Your task to perform on an android device: change notification settings in the gmail app Image 0: 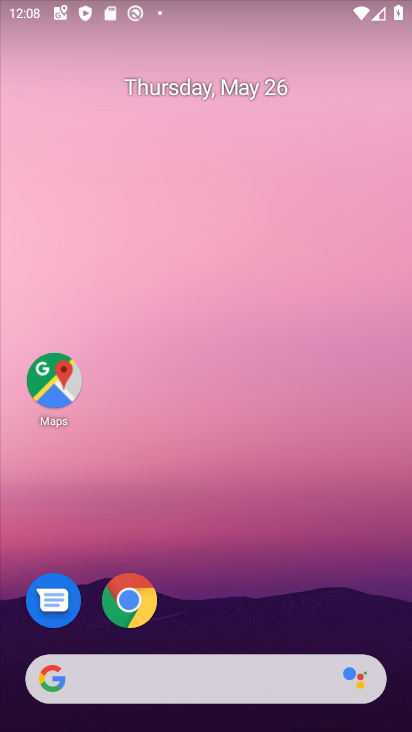
Step 0: drag from (245, 512) to (250, 2)
Your task to perform on an android device: change notification settings in the gmail app Image 1: 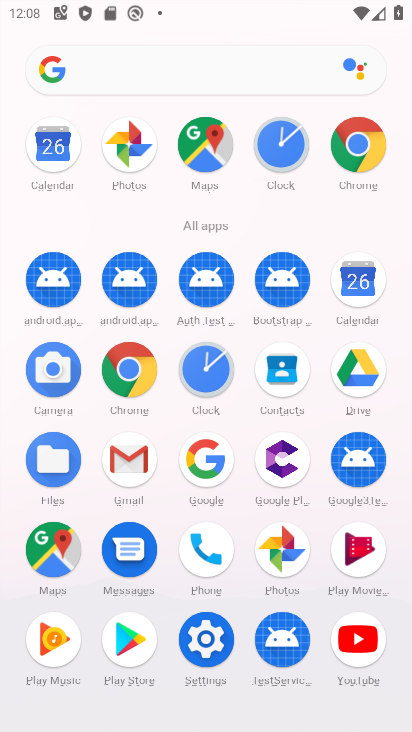
Step 1: click (139, 461)
Your task to perform on an android device: change notification settings in the gmail app Image 2: 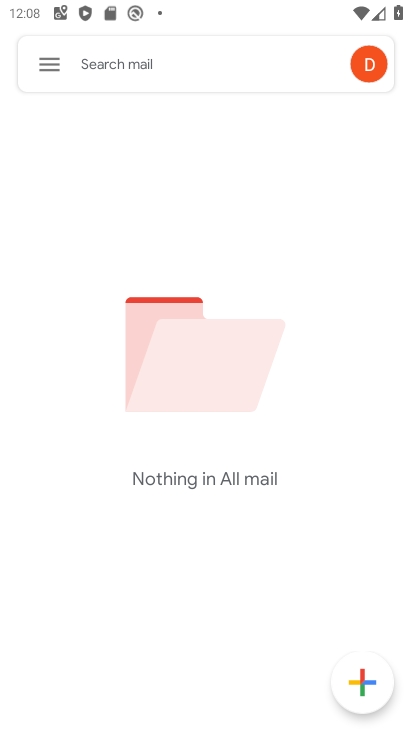
Step 2: click (38, 56)
Your task to perform on an android device: change notification settings in the gmail app Image 3: 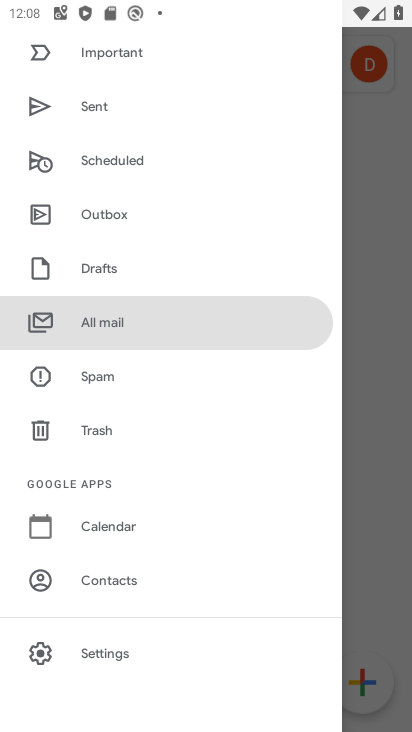
Step 3: click (105, 644)
Your task to perform on an android device: change notification settings in the gmail app Image 4: 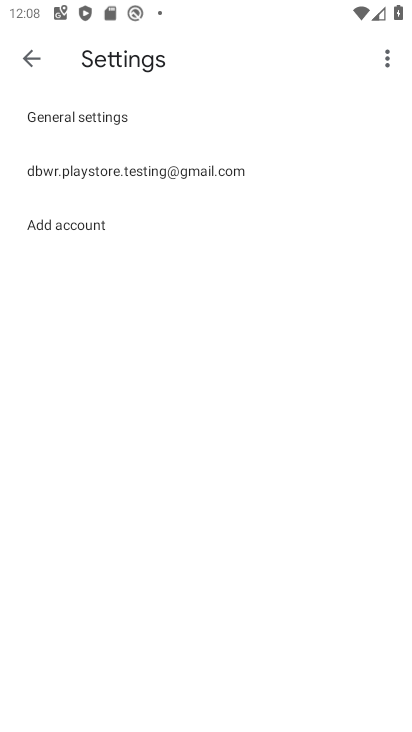
Step 4: click (173, 175)
Your task to perform on an android device: change notification settings in the gmail app Image 5: 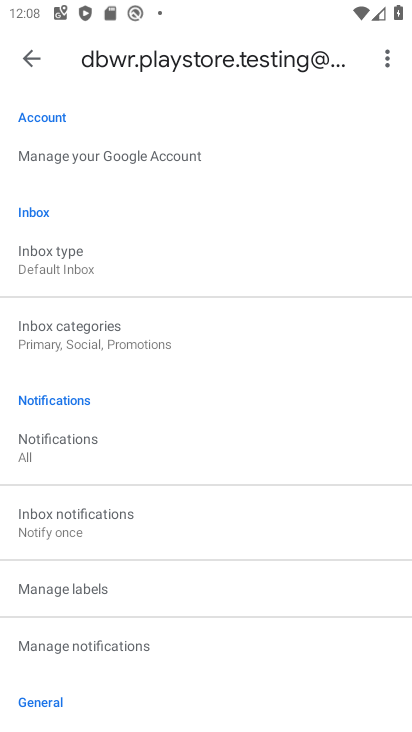
Step 5: drag from (200, 507) to (238, 305)
Your task to perform on an android device: change notification settings in the gmail app Image 6: 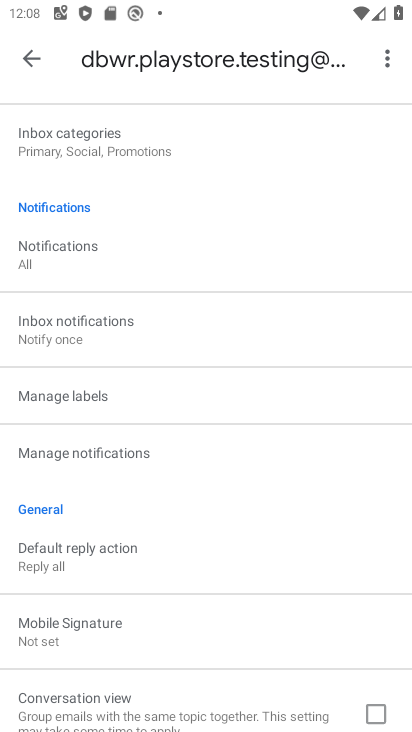
Step 6: click (118, 453)
Your task to perform on an android device: change notification settings in the gmail app Image 7: 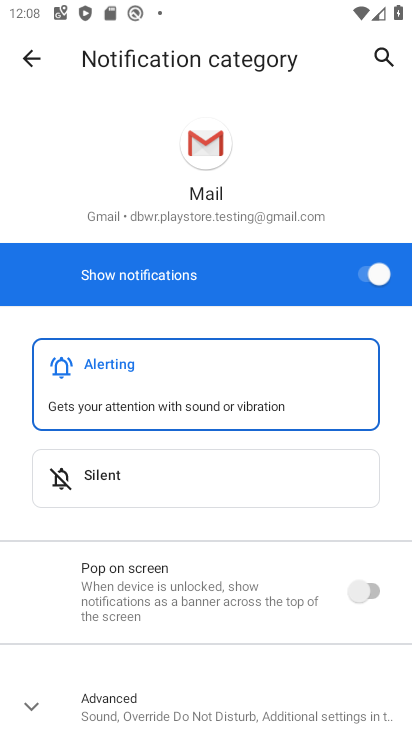
Step 7: click (346, 271)
Your task to perform on an android device: change notification settings in the gmail app Image 8: 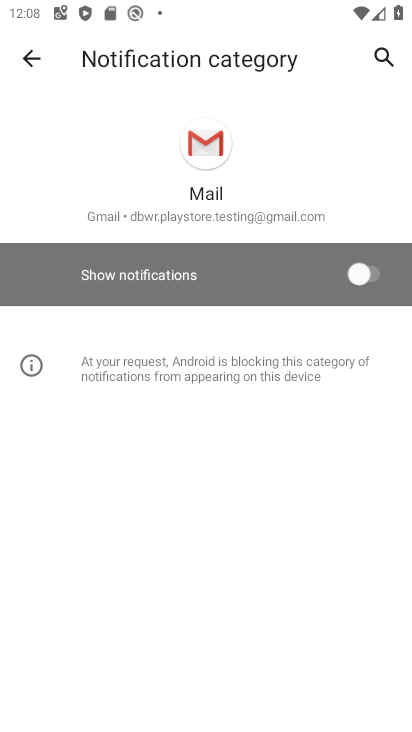
Step 8: task complete